Your task to perform on an android device: change keyboard looks Image 0: 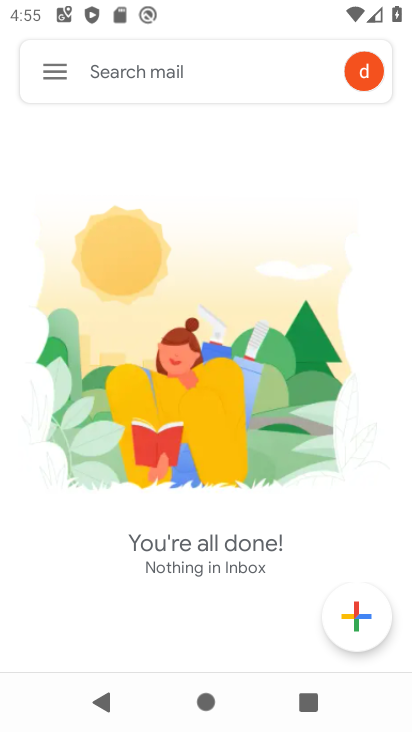
Step 0: press home button
Your task to perform on an android device: change keyboard looks Image 1: 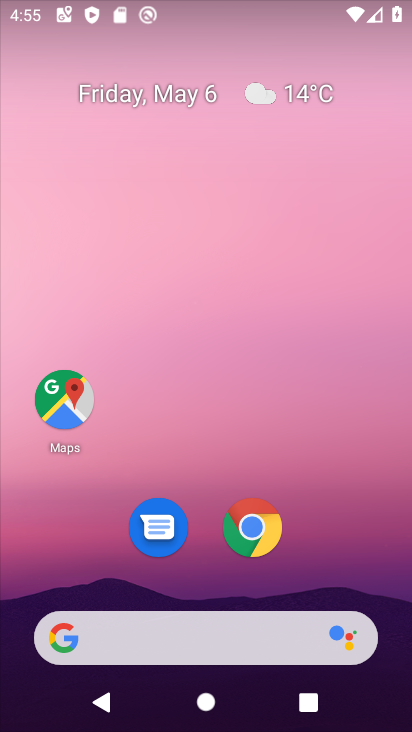
Step 1: drag from (333, 565) to (338, 116)
Your task to perform on an android device: change keyboard looks Image 2: 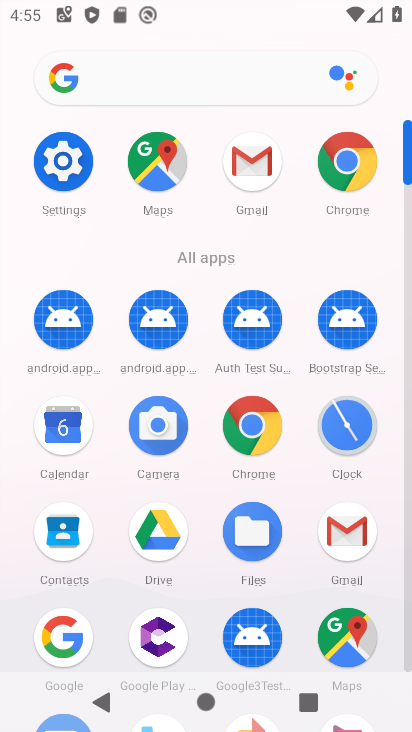
Step 2: click (79, 158)
Your task to perform on an android device: change keyboard looks Image 3: 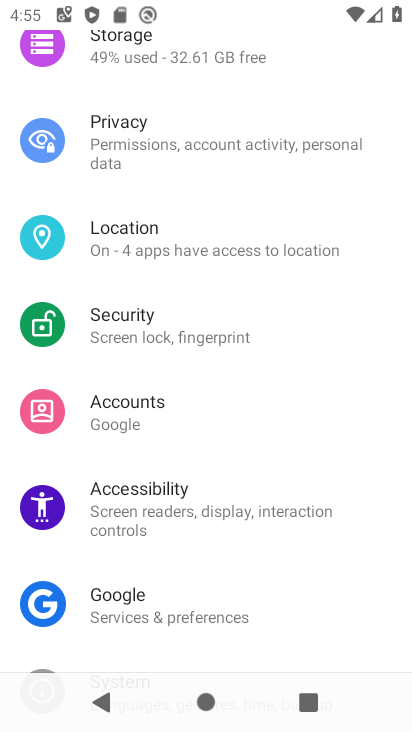
Step 3: drag from (239, 582) to (281, 81)
Your task to perform on an android device: change keyboard looks Image 4: 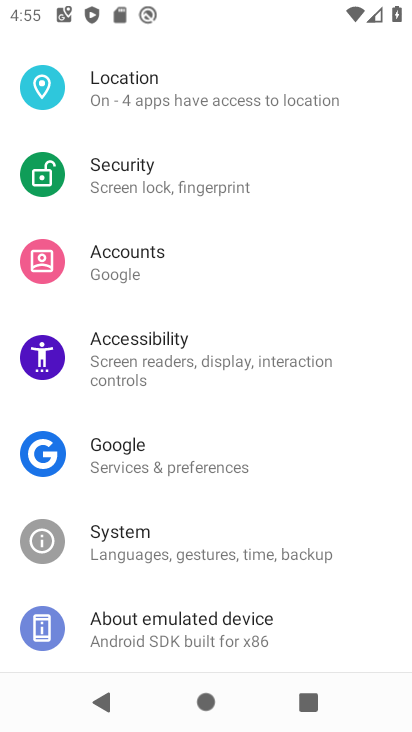
Step 4: click (179, 569)
Your task to perform on an android device: change keyboard looks Image 5: 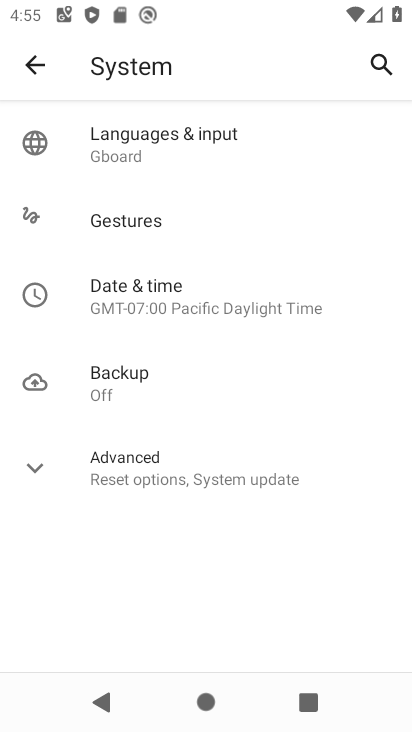
Step 5: click (144, 148)
Your task to perform on an android device: change keyboard looks Image 6: 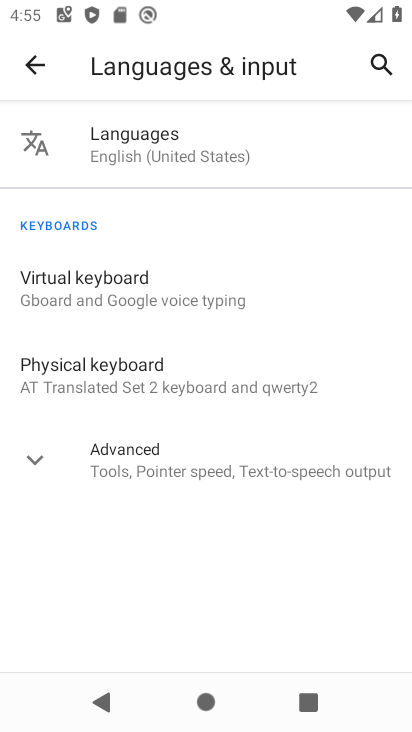
Step 6: click (140, 279)
Your task to perform on an android device: change keyboard looks Image 7: 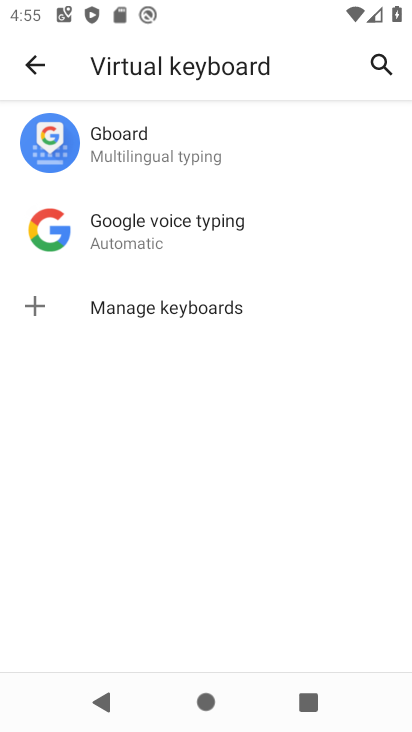
Step 7: click (153, 155)
Your task to perform on an android device: change keyboard looks Image 8: 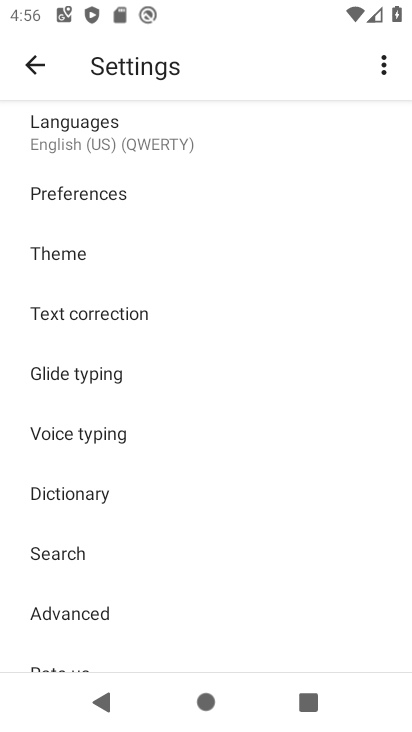
Step 8: click (57, 257)
Your task to perform on an android device: change keyboard looks Image 9: 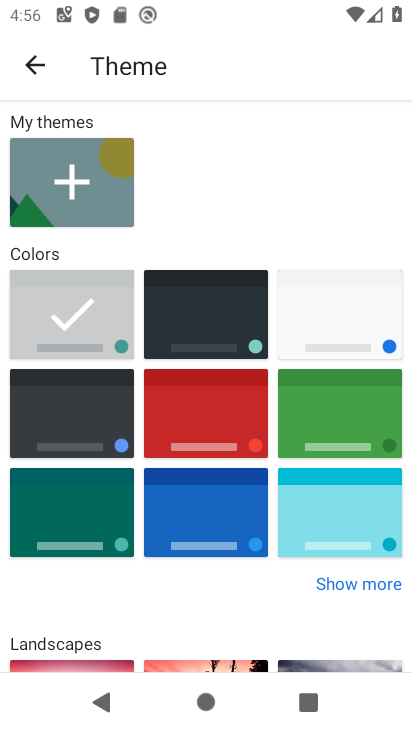
Step 9: click (227, 330)
Your task to perform on an android device: change keyboard looks Image 10: 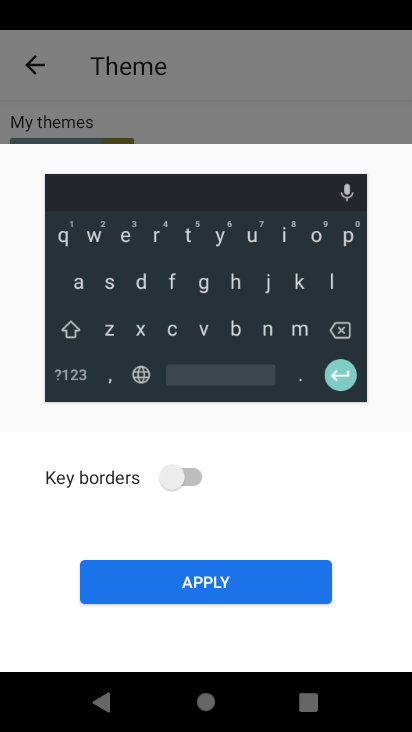
Step 10: task complete